Your task to perform on an android device: turn off data saver in the chrome app Image 0: 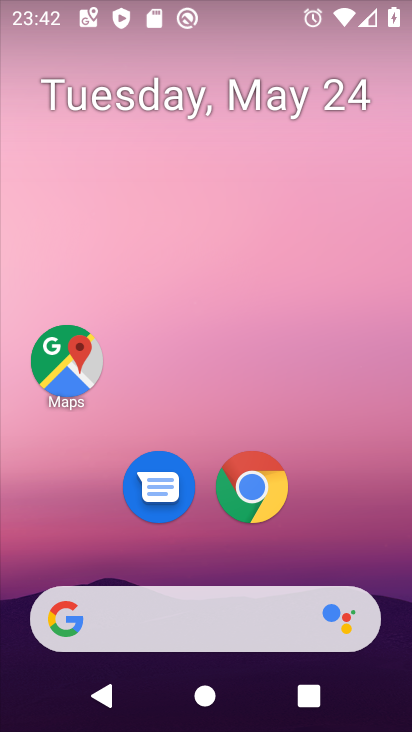
Step 0: click (268, 473)
Your task to perform on an android device: turn off data saver in the chrome app Image 1: 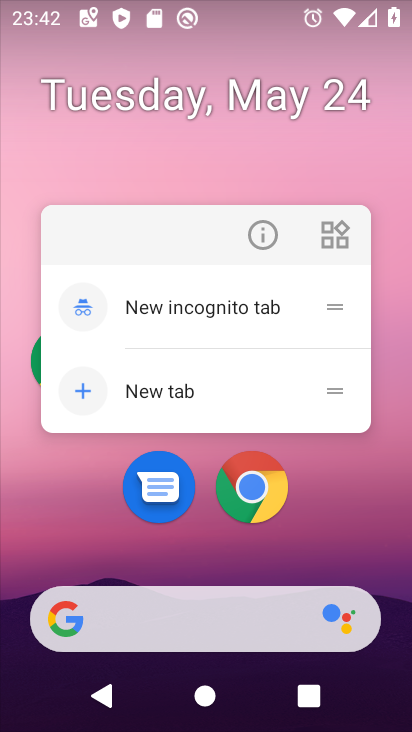
Step 1: click (253, 474)
Your task to perform on an android device: turn off data saver in the chrome app Image 2: 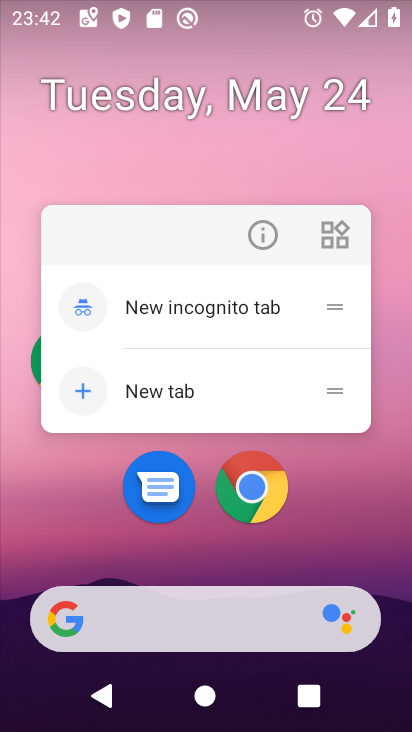
Step 2: click (247, 494)
Your task to perform on an android device: turn off data saver in the chrome app Image 3: 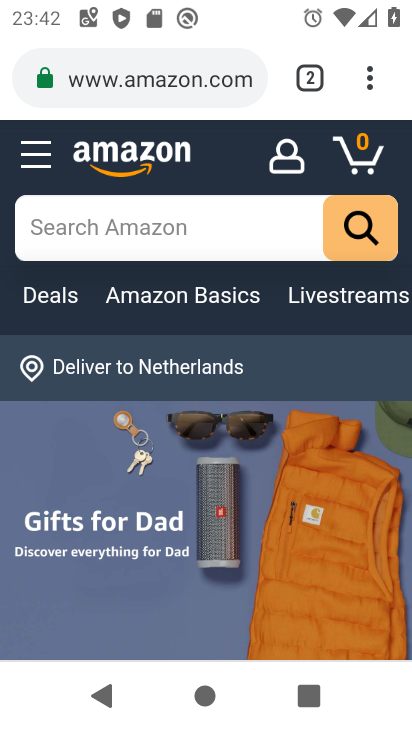
Step 3: drag from (368, 69) to (146, 544)
Your task to perform on an android device: turn off data saver in the chrome app Image 4: 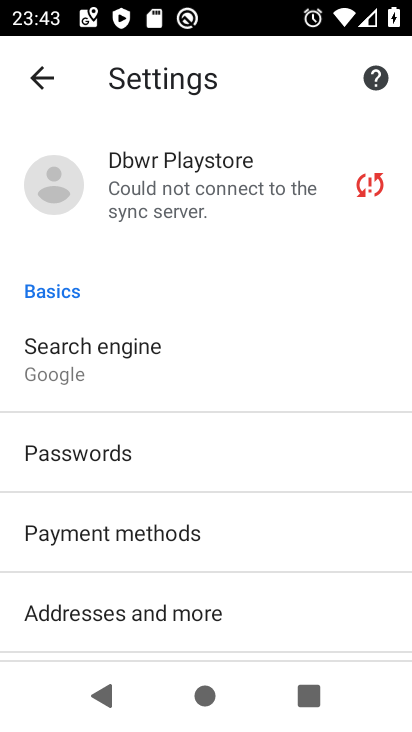
Step 4: drag from (137, 623) to (227, 99)
Your task to perform on an android device: turn off data saver in the chrome app Image 5: 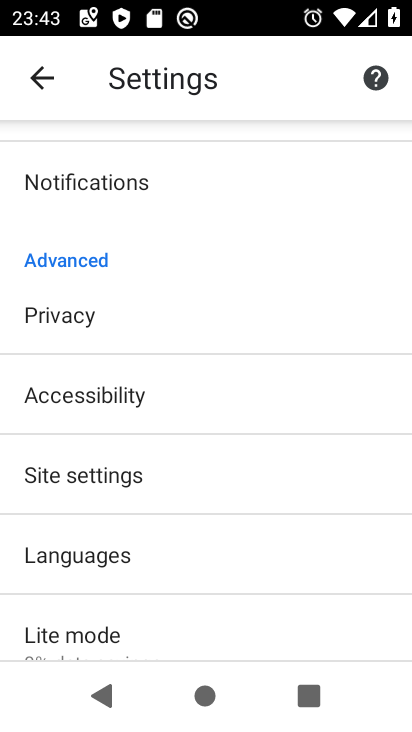
Step 5: click (110, 630)
Your task to perform on an android device: turn off data saver in the chrome app Image 6: 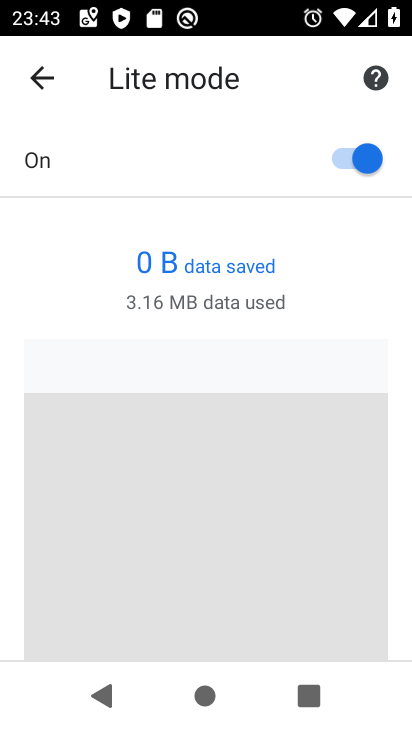
Step 6: click (352, 153)
Your task to perform on an android device: turn off data saver in the chrome app Image 7: 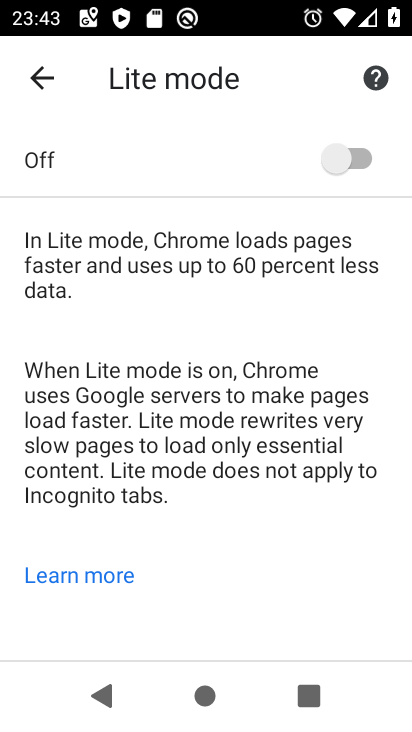
Step 7: task complete